Your task to perform on an android device: add a contact in the contacts app Image 0: 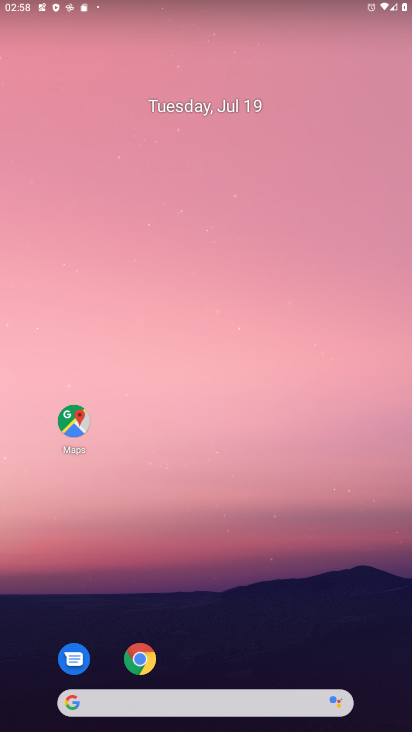
Step 0: press home button
Your task to perform on an android device: add a contact in the contacts app Image 1: 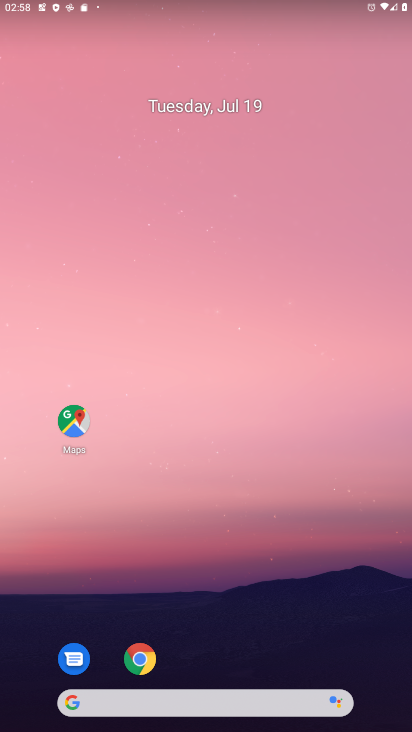
Step 1: drag from (224, 471) to (153, 182)
Your task to perform on an android device: add a contact in the contacts app Image 2: 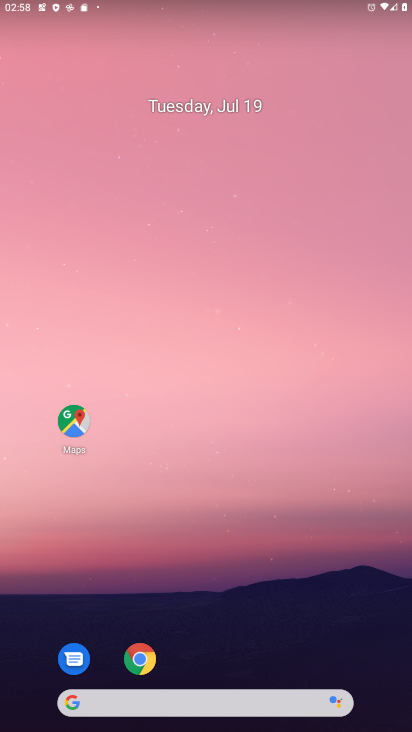
Step 2: drag from (243, 665) to (257, 14)
Your task to perform on an android device: add a contact in the contacts app Image 3: 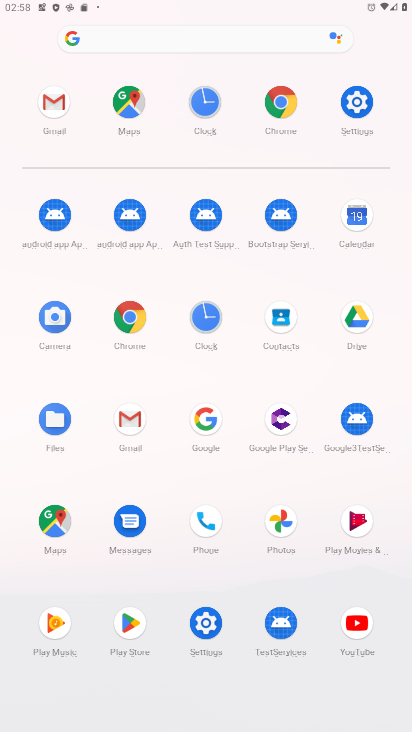
Step 3: click (274, 318)
Your task to perform on an android device: add a contact in the contacts app Image 4: 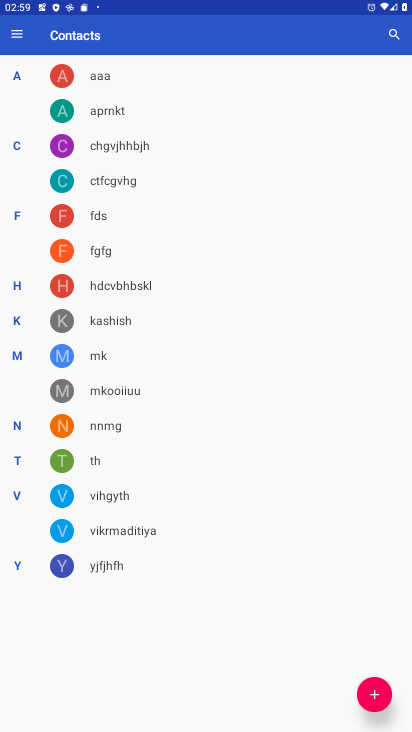
Step 4: click (386, 681)
Your task to perform on an android device: add a contact in the contacts app Image 5: 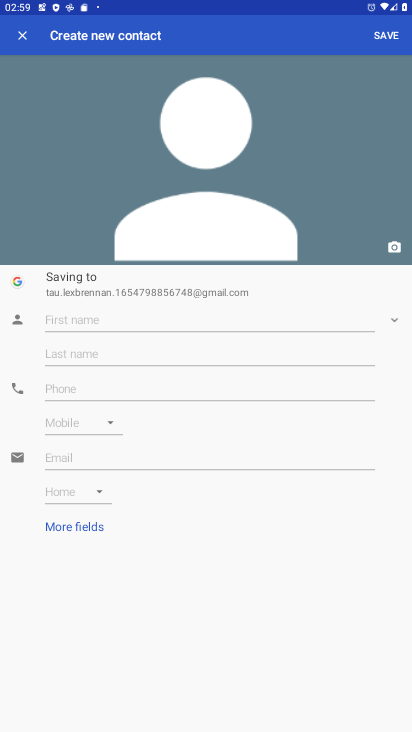
Step 5: click (256, 318)
Your task to perform on an android device: add a contact in the contacts app Image 6: 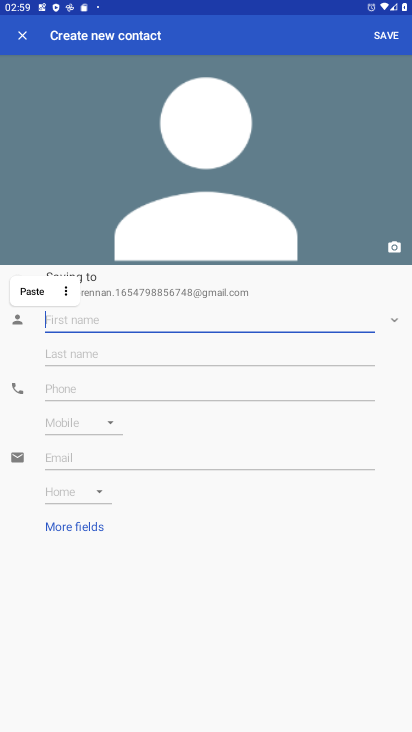
Step 6: type "xxcvbnjh"
Your task to perform on an android device: add a contact in the contacts app Image 7: 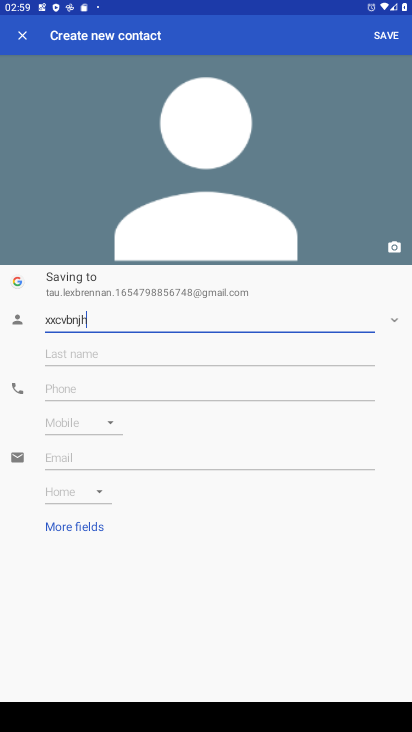
Step 7: click (123, 391)
Your task to perform on an android device: add a contact in the contacts app Image 8: 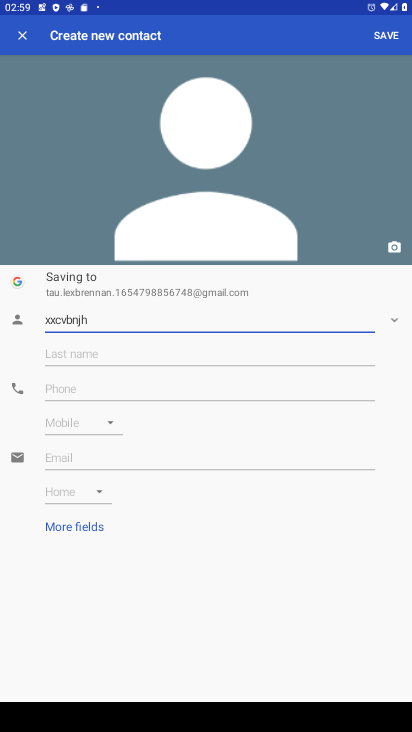
Step 8: click (123, 391)
Your task to perform on an android device: add a contact in the contacts app Image 9: 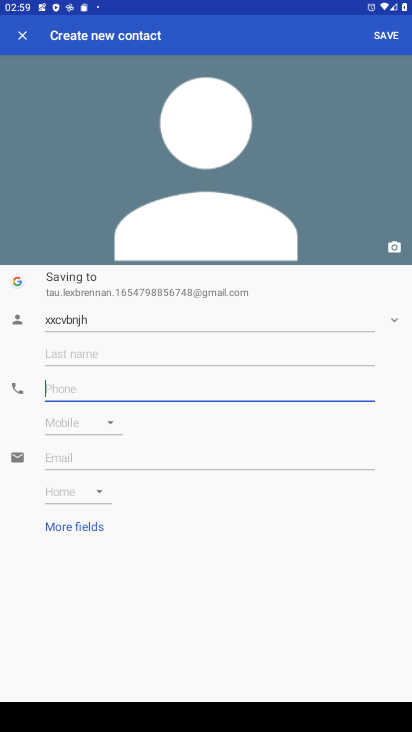
Step 9: type "4435465532112"
Your task to perform on an android device: add a contact in the contacts app Image 10: 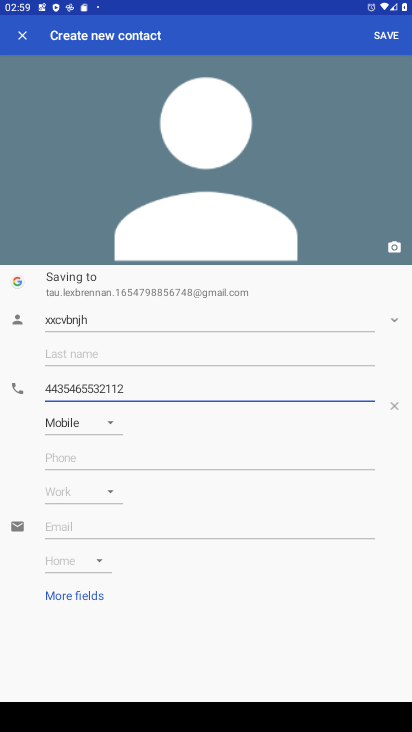
Step 10: click (395, 30)
Your task to perform on an android device: add a contact in the contacts app Image 11: 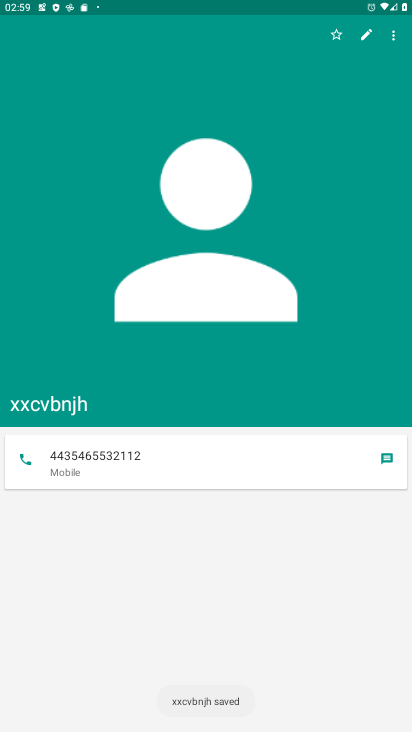
Step 11: task complete